Your task to perform on an android device: Open maps Image 0: 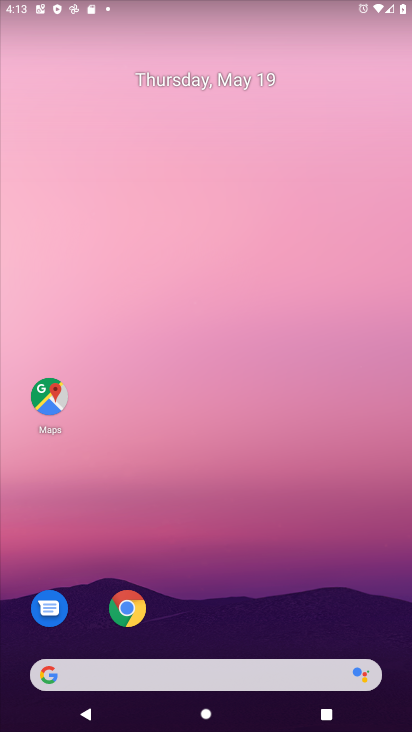
Step 0: drag from (285, 374) to (288, 1)
Your task to perform on an android device: Open maps Image 1: 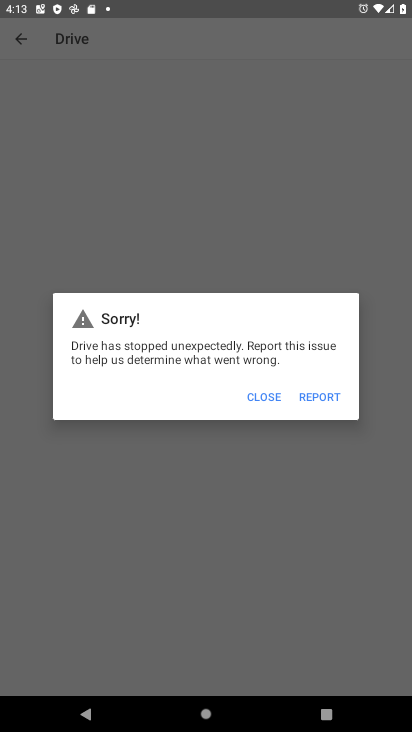
Step 1: press home button
Your task to perform on an android device: Open maps Image 2: 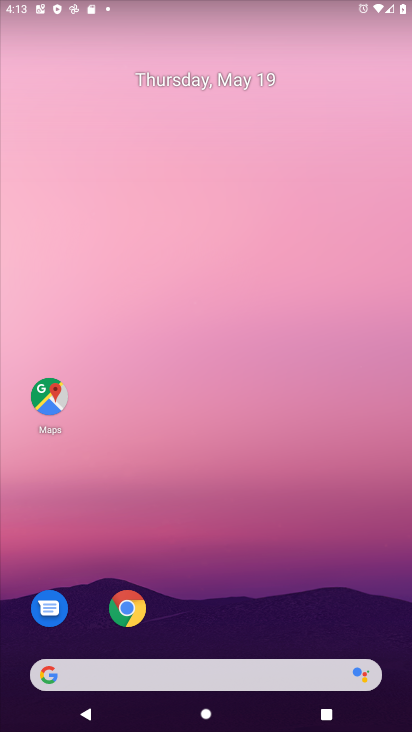
Step 2: click (61, 401)
Your task to perform on an android device: Open maps Image 3: 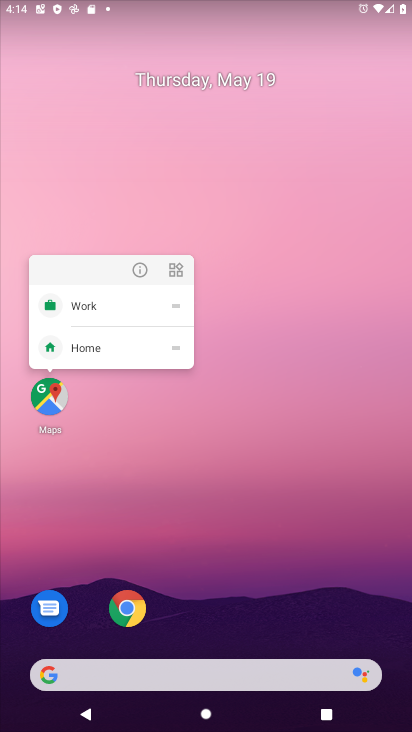
Step 3: click (62, 379)
Your task to perform on an android device: Open maps Image 4: 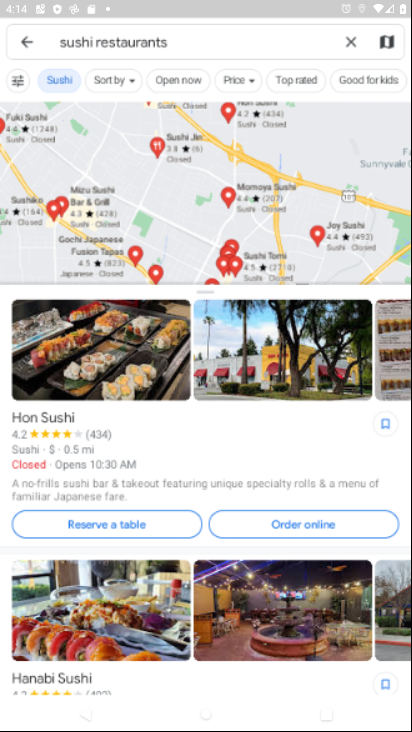
Step 4: task complete